Your task to perform on an android device: Open privacy settings Image 0: 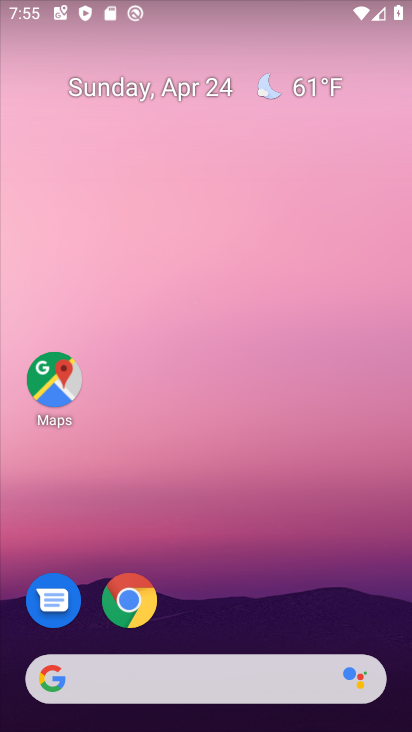
Step 0: drag from (213, 720) to (208, 21)
Your task to perform on an android device: Open privacy settings Image 1: 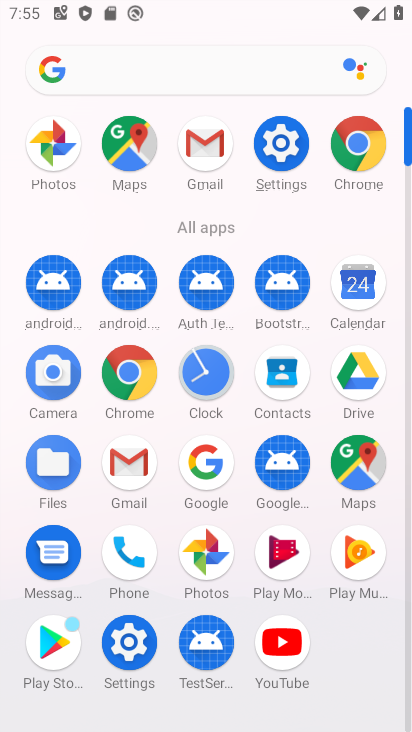
Step 1: click (277, 141)
Your task to perform on an android device: Open privacy settings Image 2: 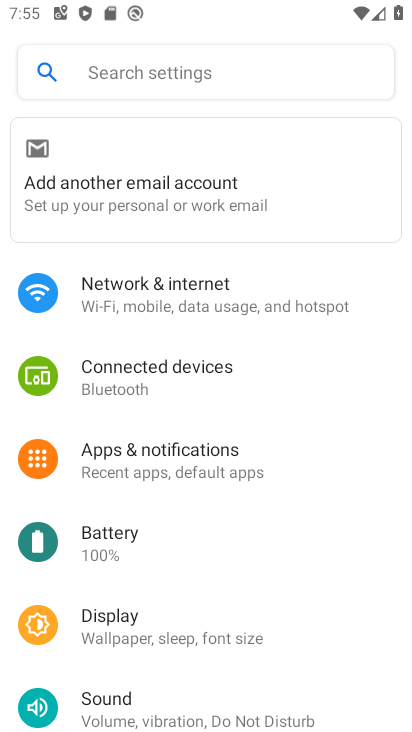
Step 2: drag from (197, 694) to (204, 286)
Your task to perform on an android device: Open privacy settings Image 3: 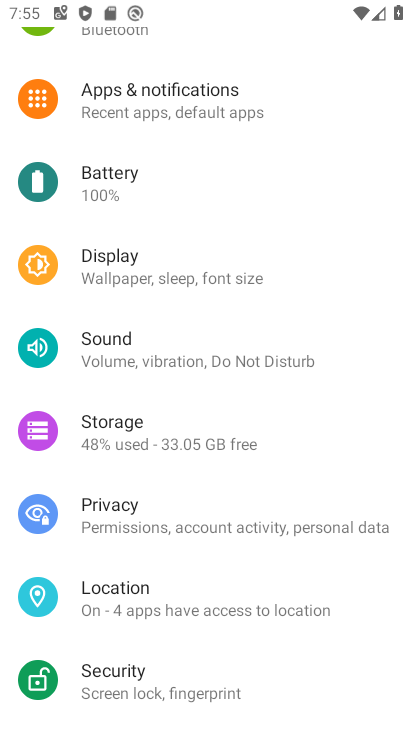
Step 3: click (102, 507)
Your task to perform on an android device: Open privacy settings Image 4: 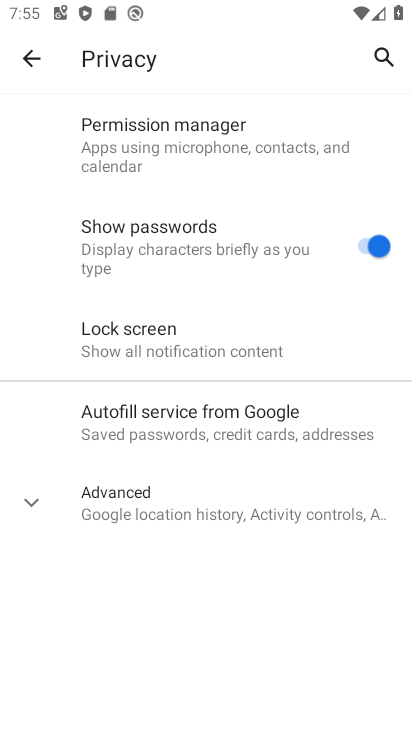
Step 4: task complete